Your task to perform on an android device: What is the news today? Image 0: 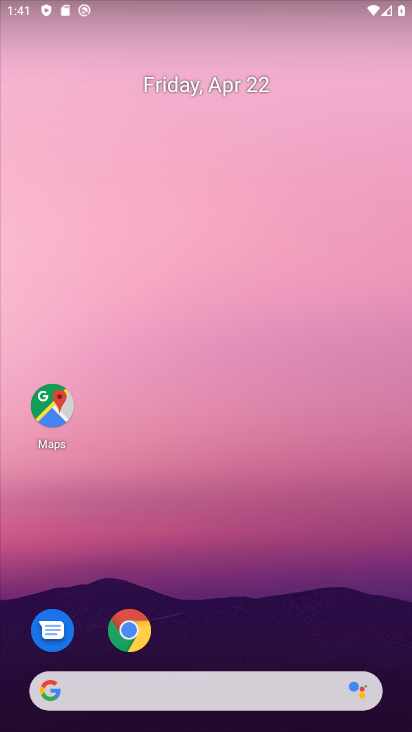
Step 0: click (228, 685)
Your task to perform on an android device: What is the news today? Image 1: 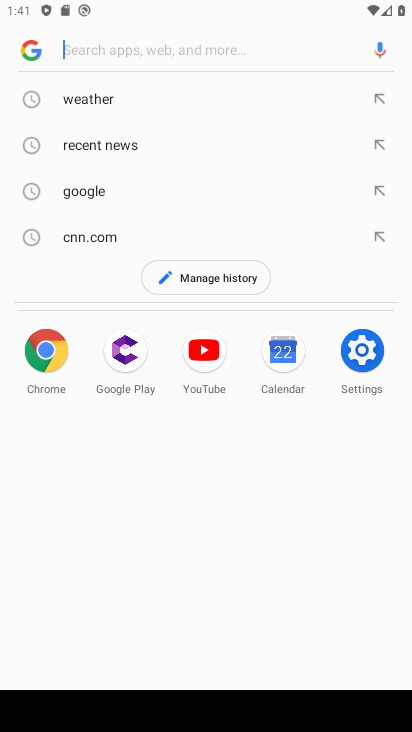
Step 1: type "news today"
Your task to perform on an android device: What is the news today? Image 2: 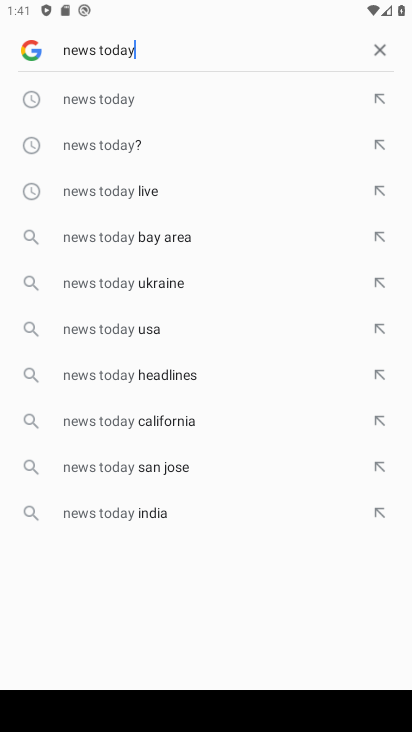
Step 2: click (130, 109)
Your task to perform on an android device: What is the news today? Image 3: 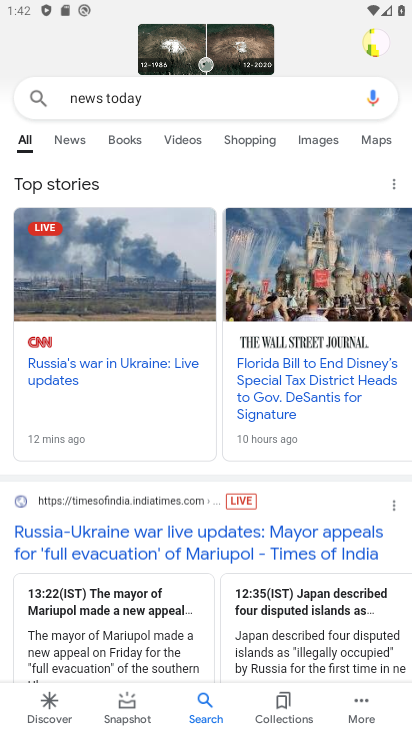
Step 3: task complete